Your task to perform on an android device: show emergency info Image 0: 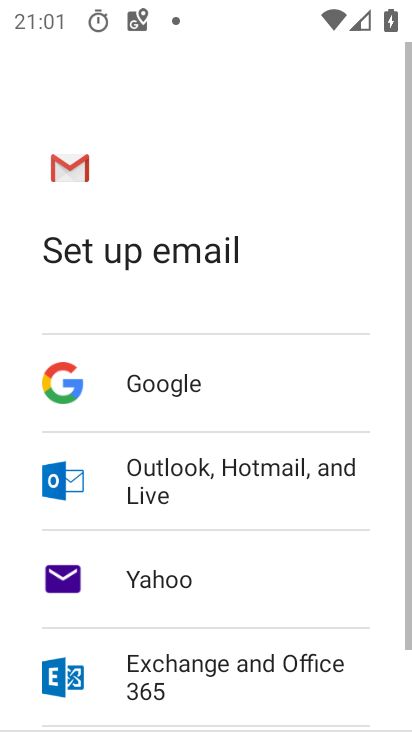
Step 0: press home button
Your task to perform on an android device: show emergency info Image 1: 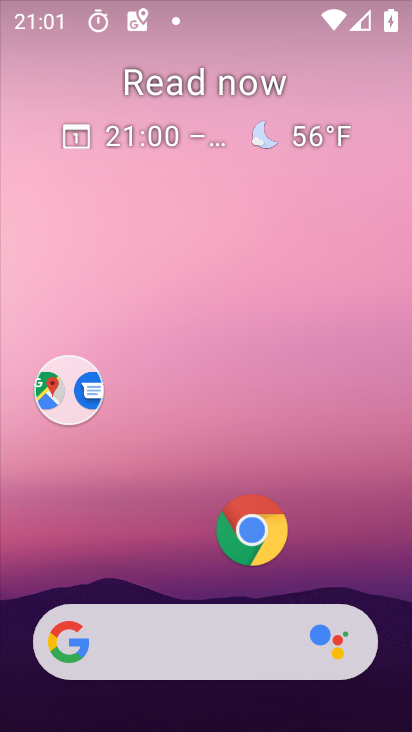
Step 1: drag from (126, 558) to (143, 81)
Your task to perform on an android device: show emergency info Image 2: 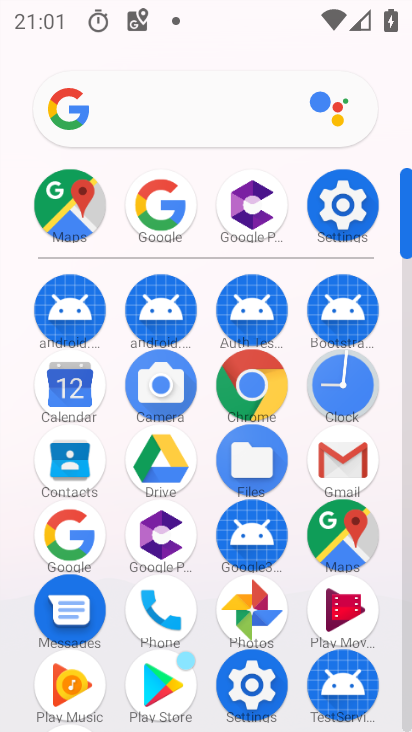
Step 2: click (341, 196)
Your task to perform on an android device: show emergency info Image 3: 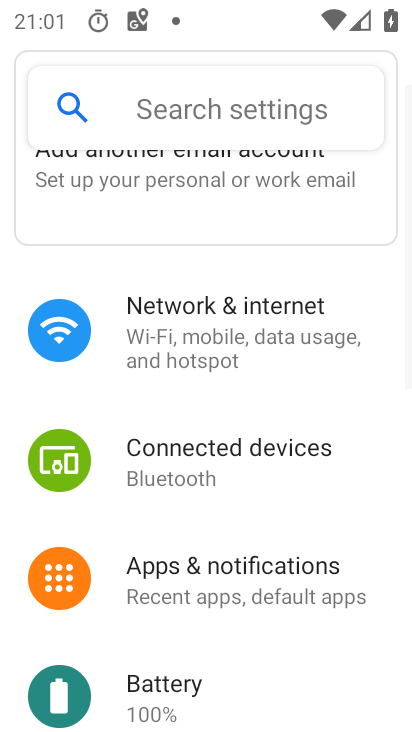
Step 3: drag from (231, 623) to (254, 23)
Your task to perform on an android device: show emergency info Image 4: 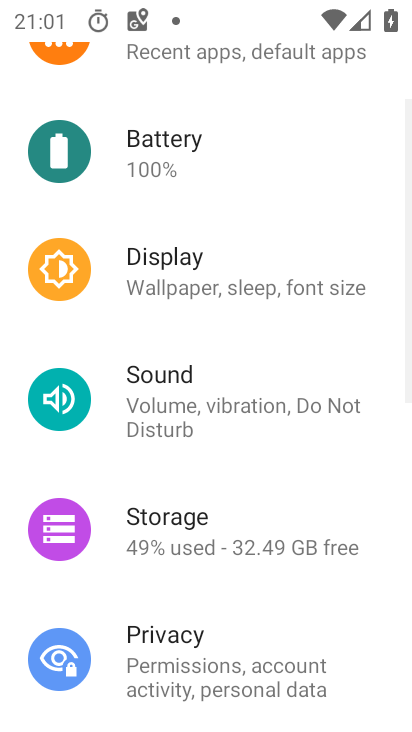
Step 4: drag from (256, 627) to (205, 25)
Your task to perform on an android device: show emergency info Image 5: 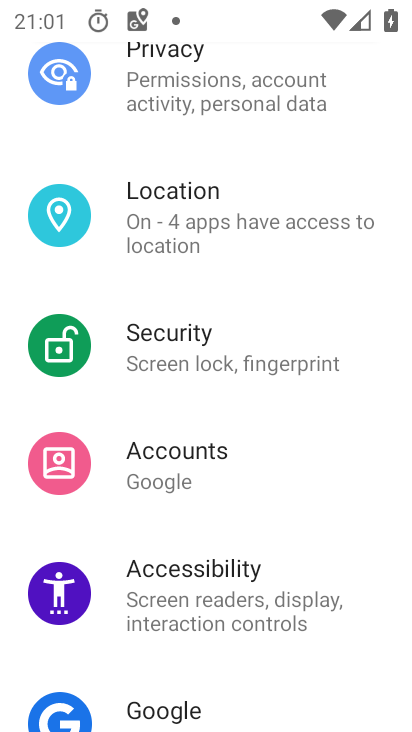
Step 5: drag from (221, 567) to (216, 18)
Your task to perform on an android device: show emergency info Image 6: 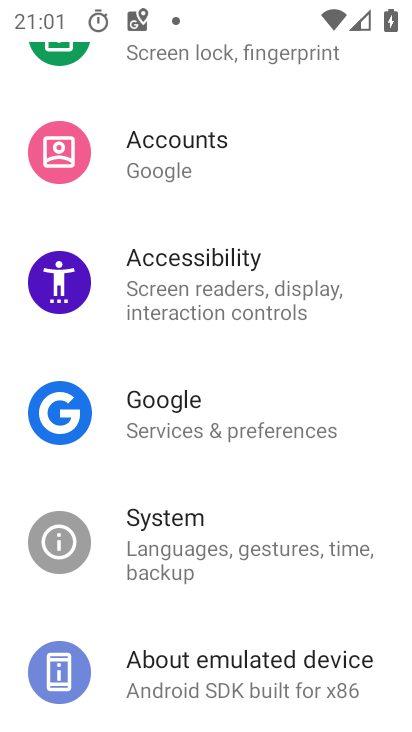
Step 6: click (208, 666)
Your task to perform on an android device: show emergency info Image 7: 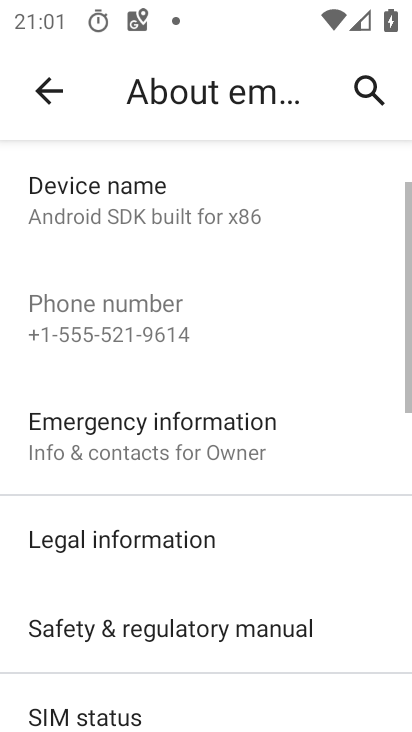
Step 7: click (152, 463)
Your task to perform on an android device: show emergency info Image 8: 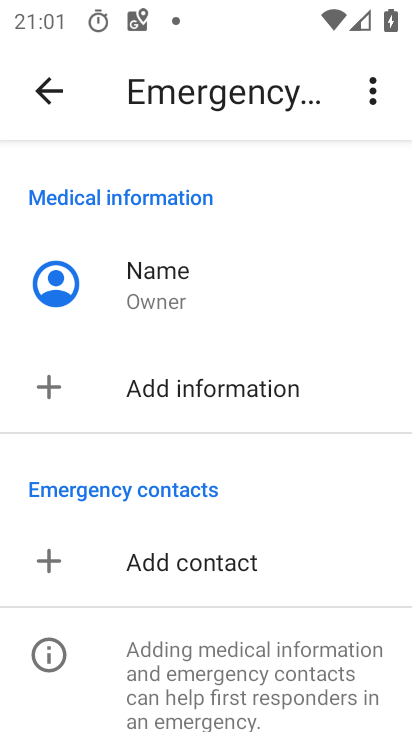
Step 8: task complete